Your task to perform on an android device: open the mobile data screen to see how much data has been used Image 0: 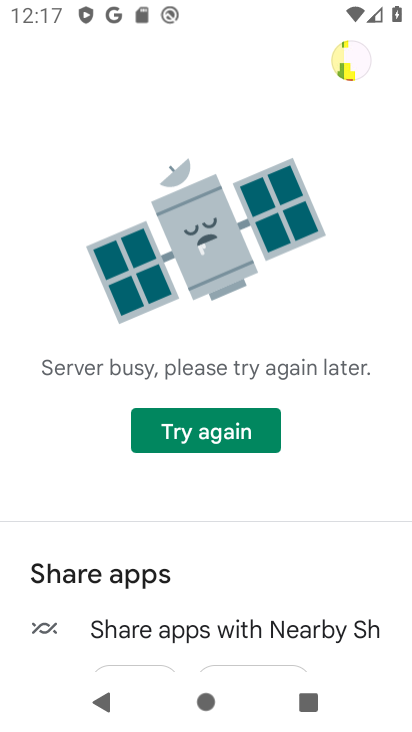
Step 0: press home button
Your task to perform on an android device: open the mobile data screen to see how much data has been used Image 1: 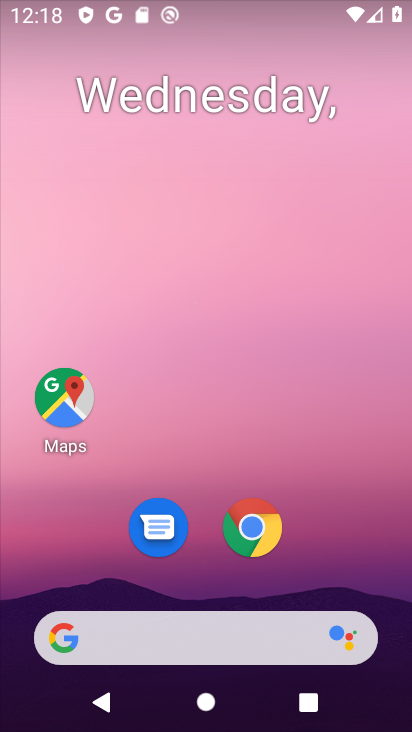
Step 1: drag from (381, 574) to (242, 99)
Your task to perform on an android device: open the mobile data screen to see how much data has been used Image 2: 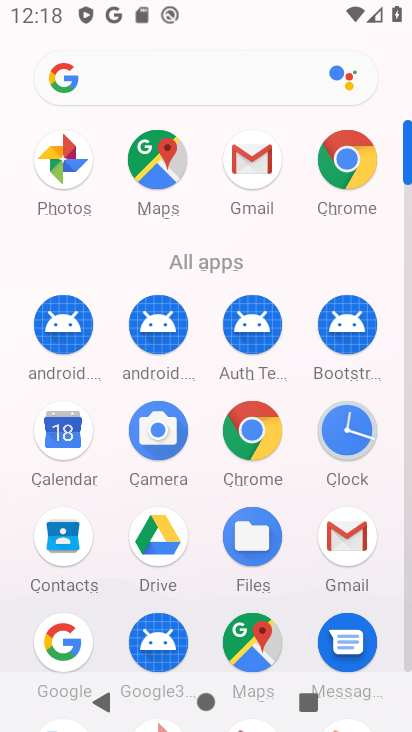
Step 2: click (405, 654)
Your task to perform on an android device: open the mobile data screen to see how much data has been used Image 3: 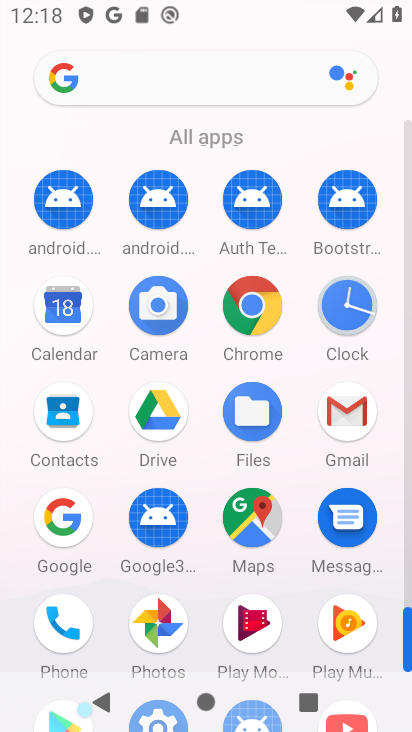
Step 3: drag from (396, 611) to (385, 423)
Your task to perform on an android device: open the mobile data screen to see how much data has been used Image 4: 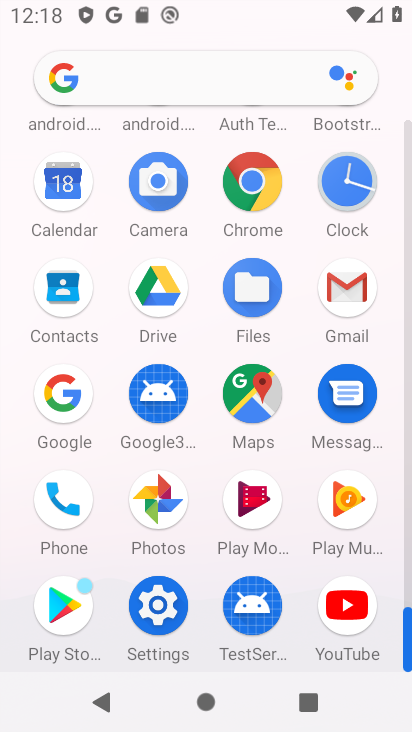
Step 4: click (164, 604)
Your task to perform on an android device: open the mobile data screen to see how much data has been used Image 5: 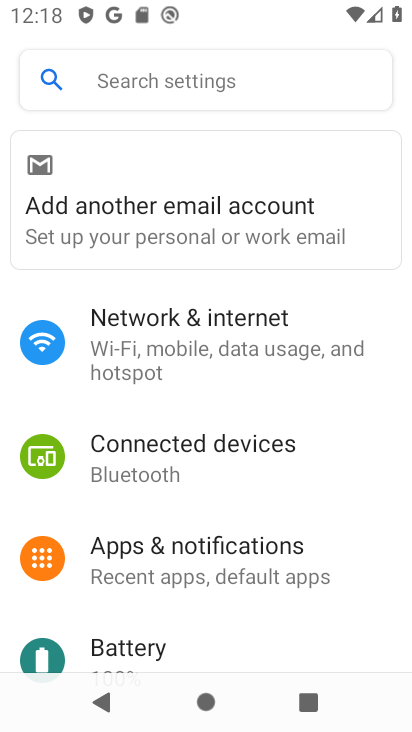
Step 5: drag from (227, 619) to (203, 525)
Your task to perform on an android device: open the mobile data screen to see how much data has been used Image 6: 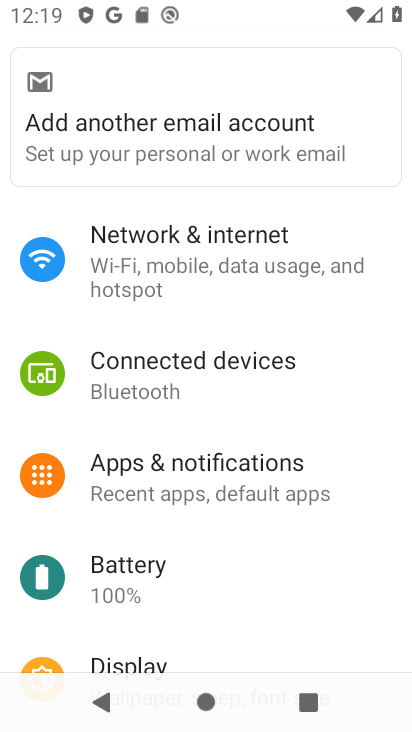
Step 6: click (186, 273)
Your task to perform on an android device: open the mobile data screen to see how much data has been used Image 7: 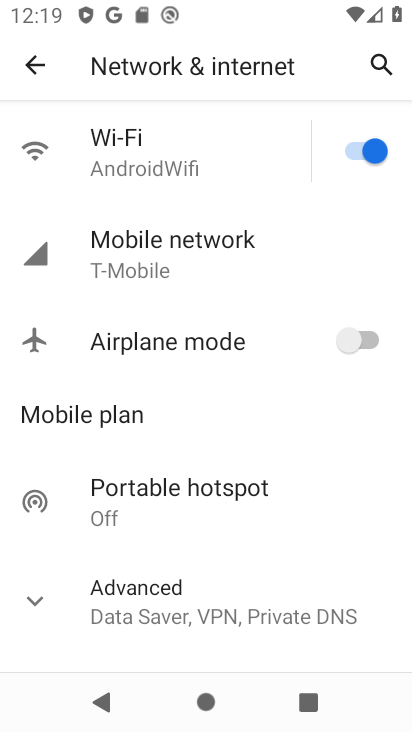
Step 7: click (172, 267)
Your task to perform on an android device: open the mobile data screen to see how much data has been used Image 8: 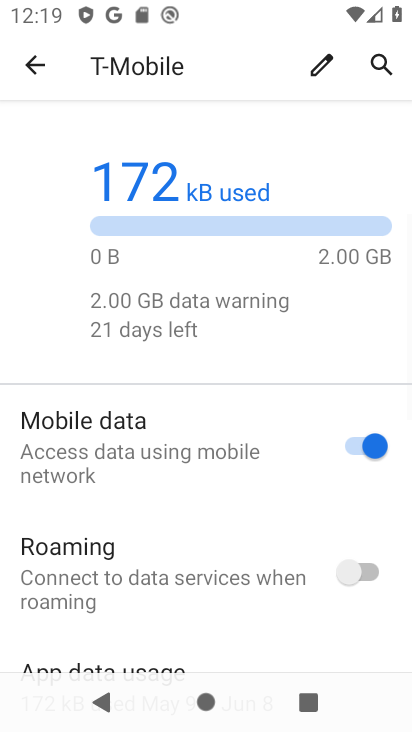
Step 8: task complete